Your task to perform on an android device: Go to internet settings Image 0: 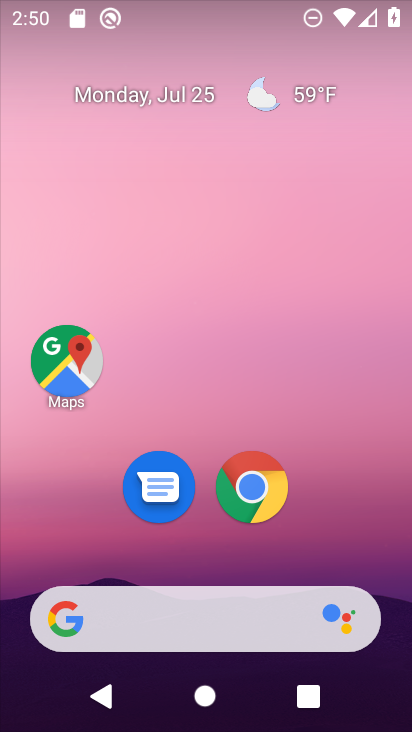
Step 0: drag from (74, 471) to (208, 2)
Your task to perform on an android device: Go to internet settings Image 1: 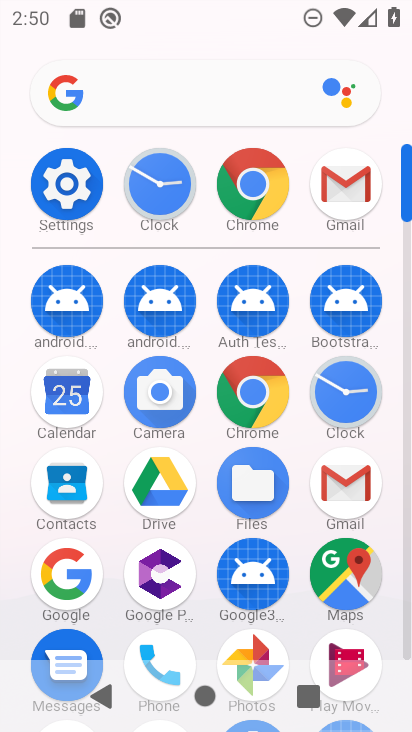
Step 1: click (76, 187)
Your task to perform on an android device: Go to internet settings Image 2: 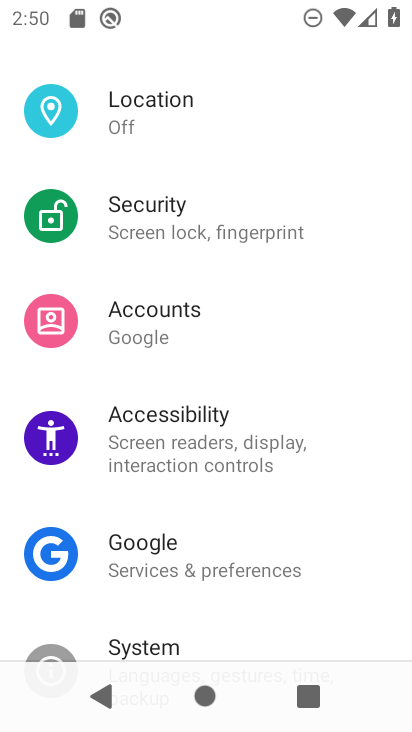
Step 2: drag from (294, 185) to (252, 729)
Your task to perform on an android device: Go to internet settings Image 3: 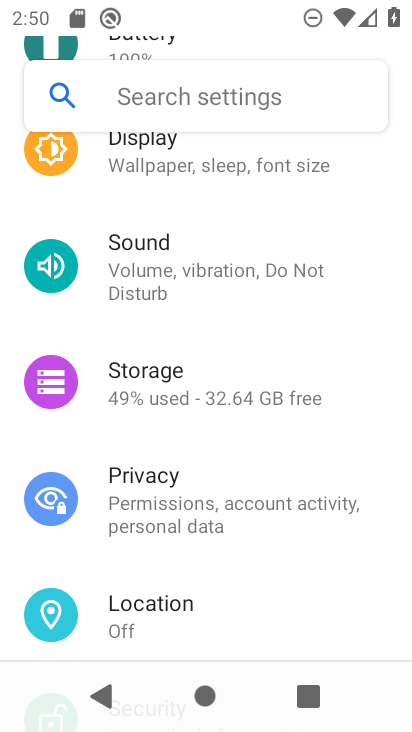
Step 3: drag from (204, 312) to (201, 729)
Your task to perform on an android device: Go to internet settings Image 4: 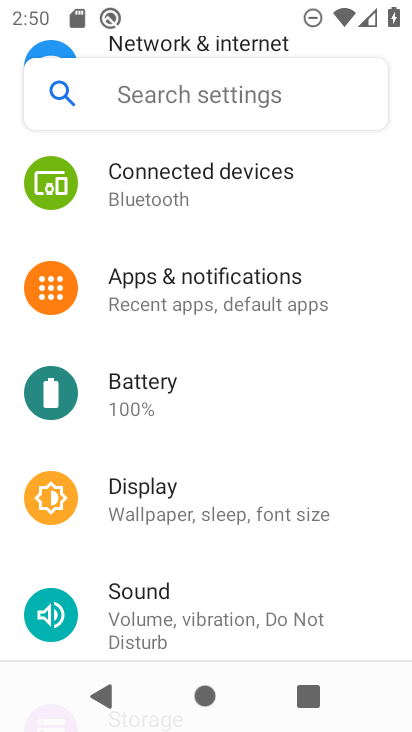
Step 4: drag from (168, 219) to (168, 692)
Your task to perform on an android device: Go to internet settings Image 5: 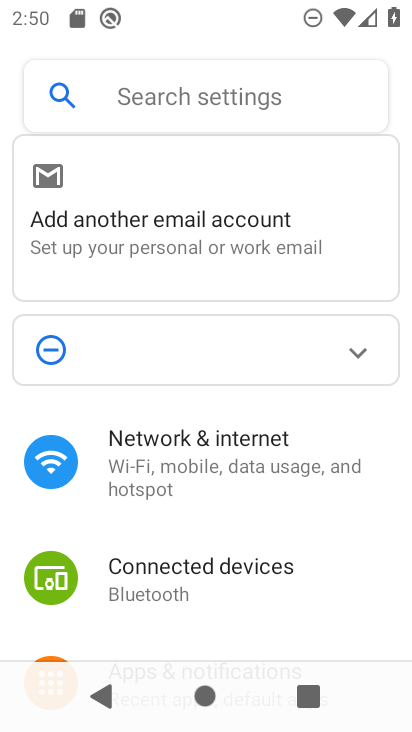
Step 5: click (162, 452)
Your task to perform on an android device: Go to internet settings Image 6: 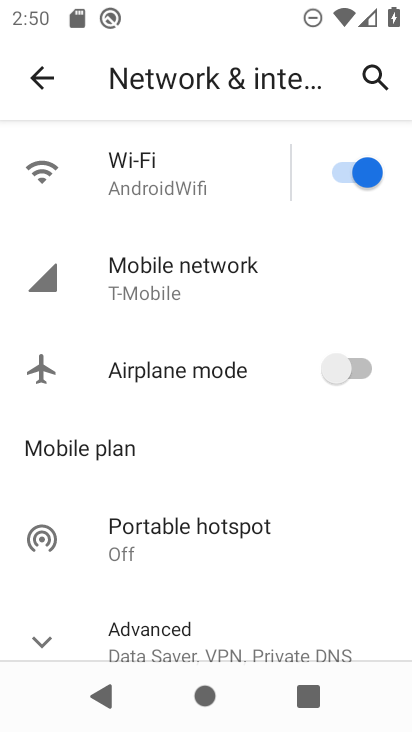
Step 6: task complete